Your task to perform on an android device: Toggle the flashlight Image 0: 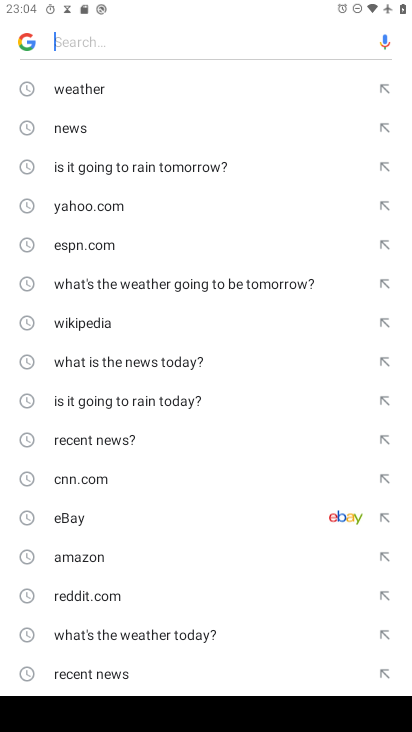
Step 0: press home button
Your task to perform on an android device: Toggle the flashlight Image 1: 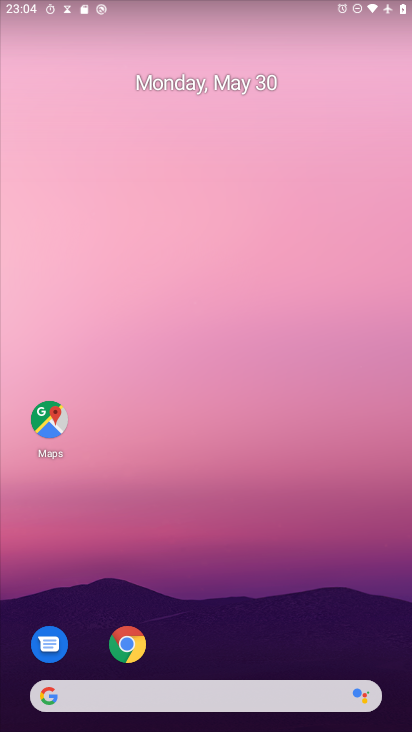
Step 1: drag from (181, 648) to (268, 2)
Your task to perform on an android device: Toggle the flashlight Image 2: 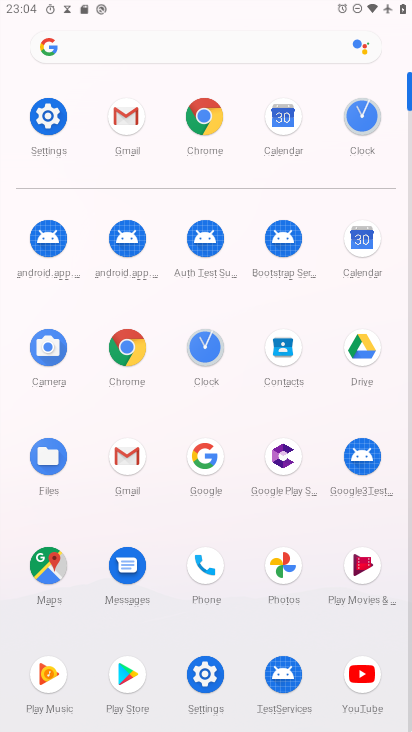
Step 2: click (48, 116)
Your task to perform on an android device: Toggle the flashlight Image 3: 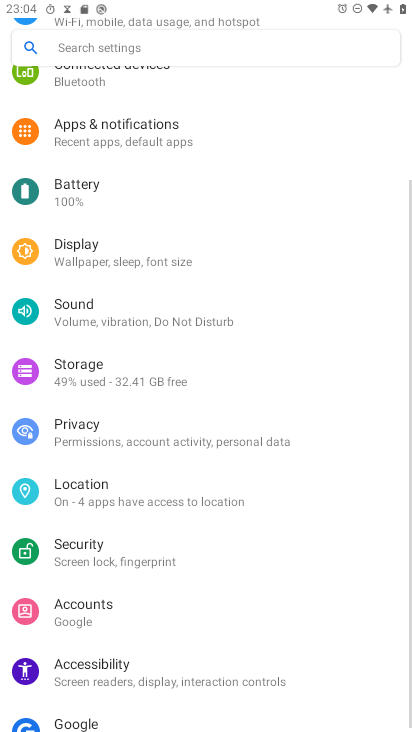
Step 3: click (185, 49)
Your task to perform on an android device: Toggle the flashlight Image 4: 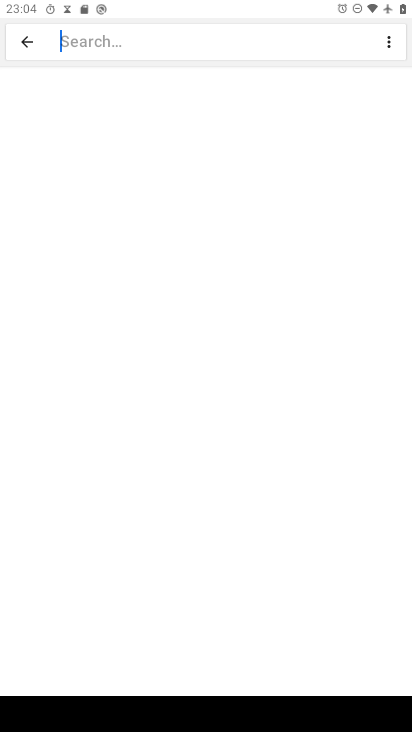
Step 4: type "flash"
Your task to perform on an android device: Toggle the flashlight Image 5: 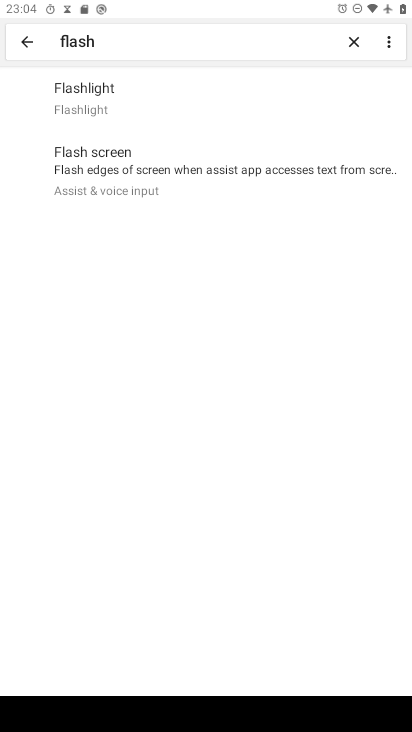
Step 5: task complete